Your task to perform on an android device: show emergency info Image 0: 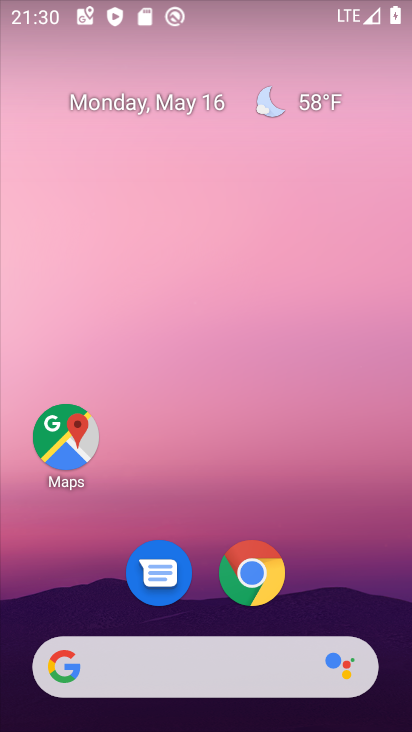
Step 0: drag from (206, 694) to (184, 8)
Your task to perform on an android device: show emergency info Image 1: 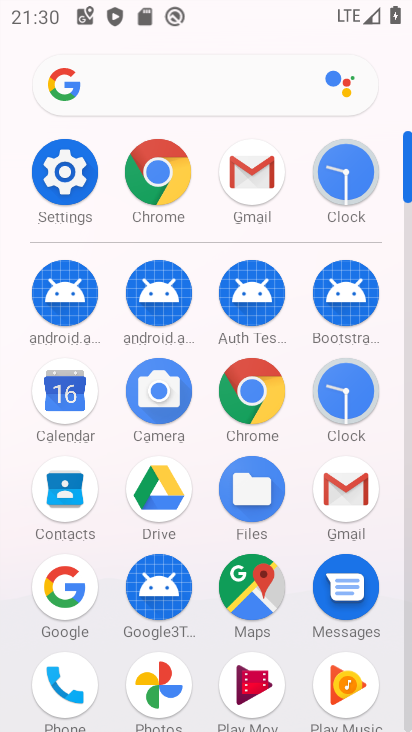
Step 1: click (62, 187)
Your task to perform on an android device: show emergency info Image 2: 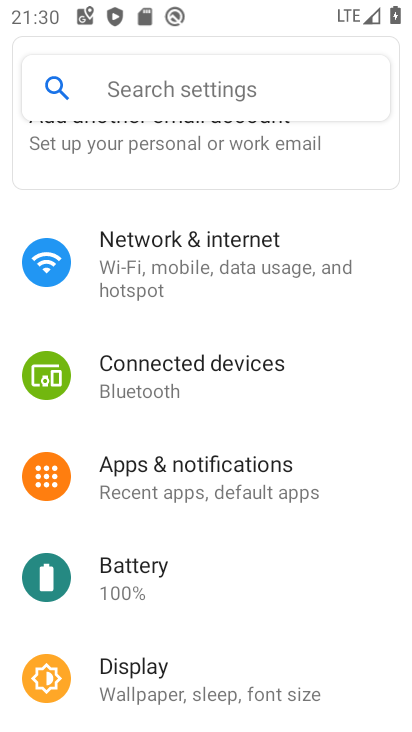
Step 2: drag from (138, 659) to (124, 292)
Your task to perform on an android device: show emergency info Image 3: 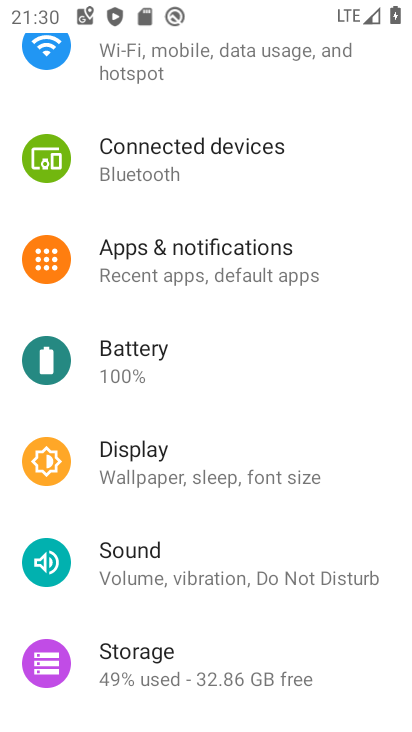
Step 3: drag from (199, 683) to (156, 171)
Your task to perform on an android device: show emergency info Image 4: 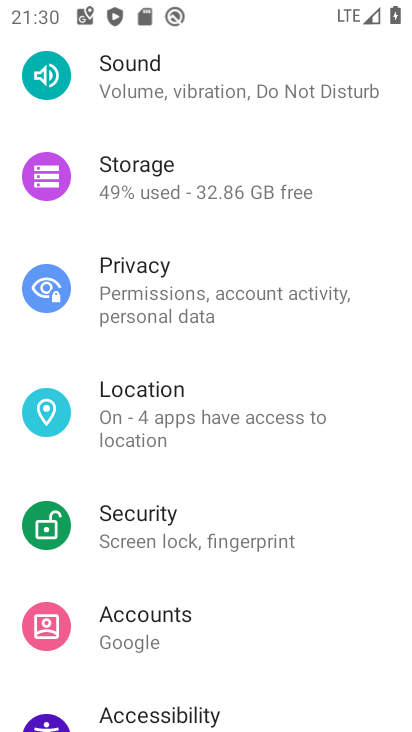
Step 4: drag from (174, 517) to (128, 114)
Your task to perform on an android device: show emergency info Image 5: 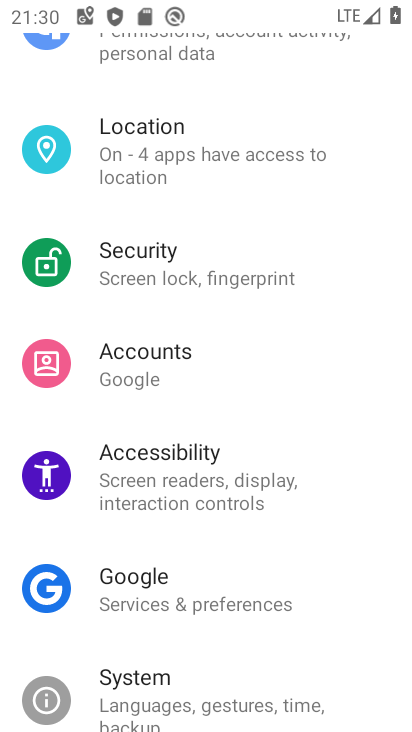
Step 5: drag from (171, 651) to (125, 249)
Your task to perform on an android device: show emergency info Image 6: 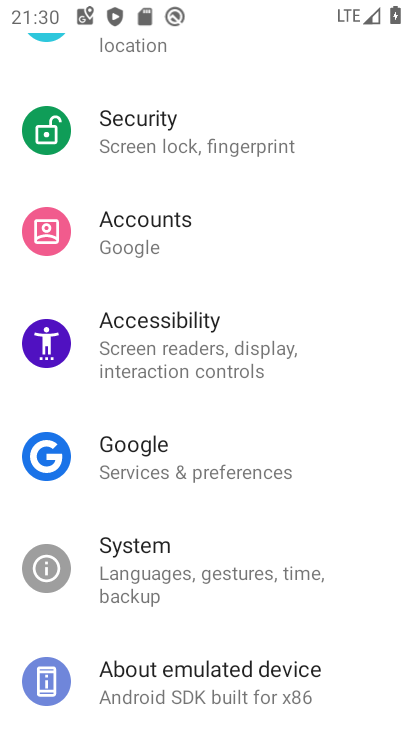
Step 6: drag from (196, 678) to (154, 245)
Your task to perform on an android device: show emergency info Image 7: 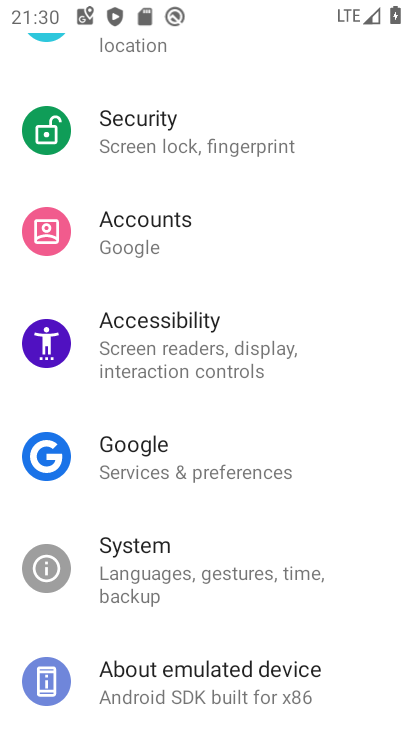
Step 7: click (172, 683)
Your task to perform on an android device: show emergency info Image 8: 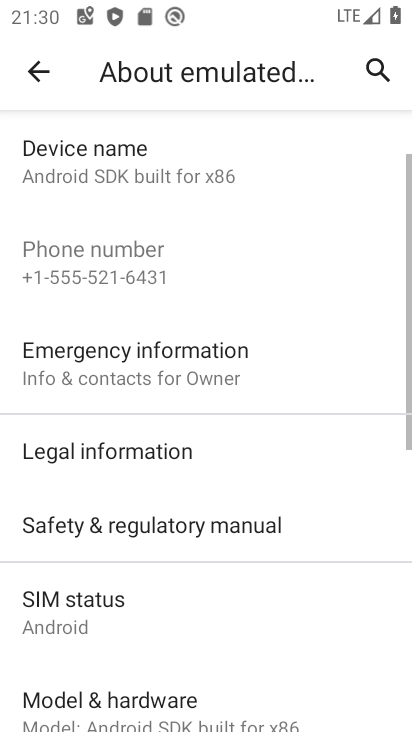
Step 8: click (69, 357)
Your task to perform on an android device: show emergency info Image 9: 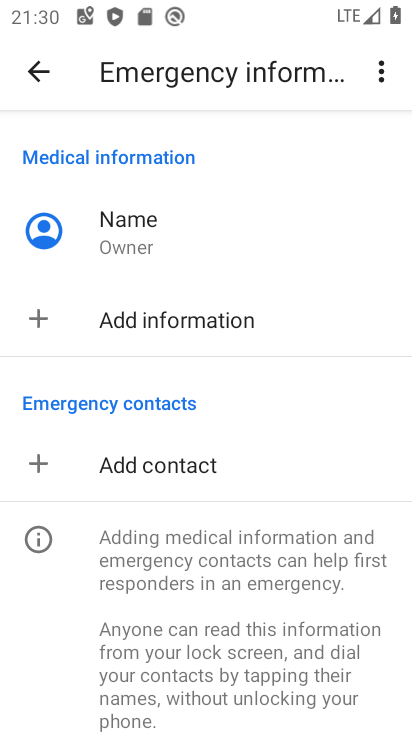
Step 9: task complete